Your task to perform on an android device: Go to ESPN.com Image 0: 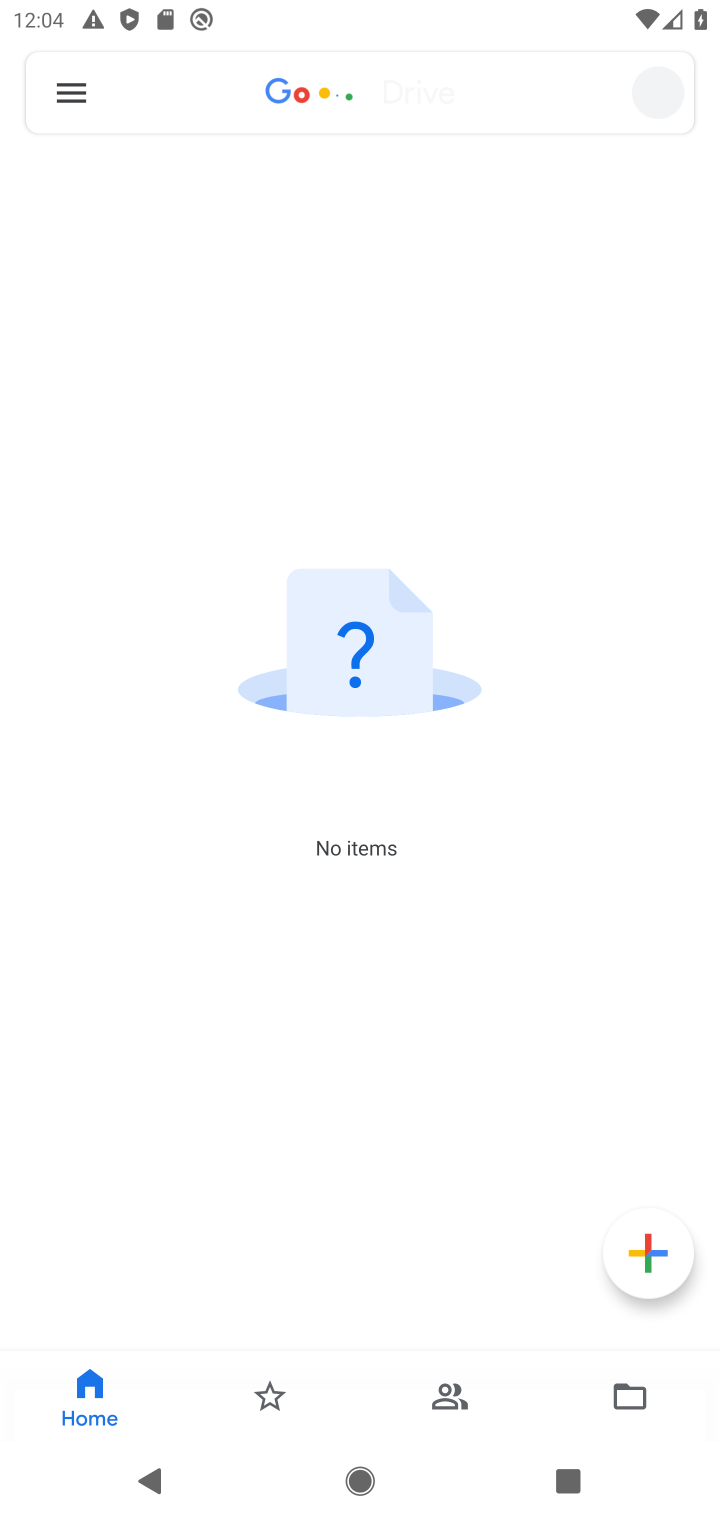
Step 0: press home button
Your task to perform on an android device: Go to ESPN.com Image 1: 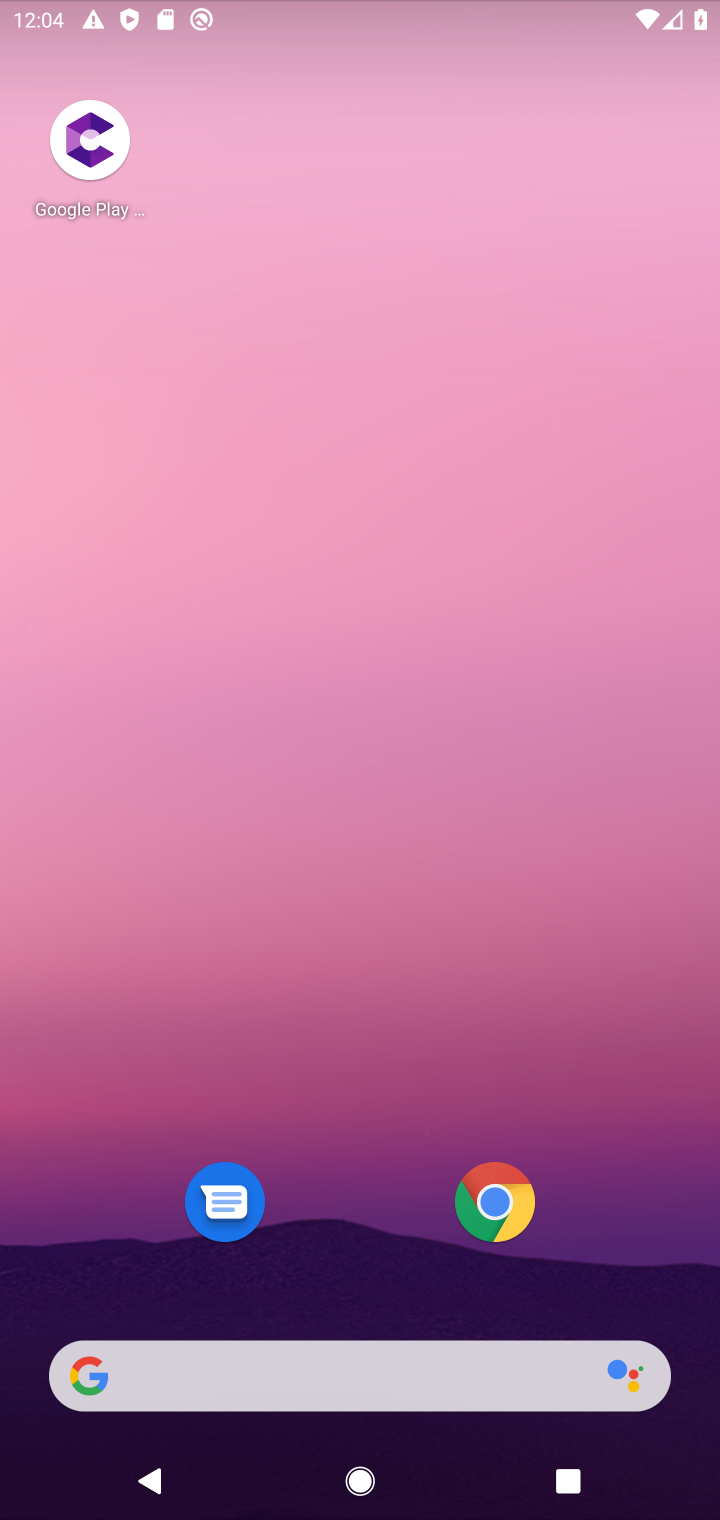
Step 1: press home button
Your task to perform on an android device: Go to ESPN.com Image 2: 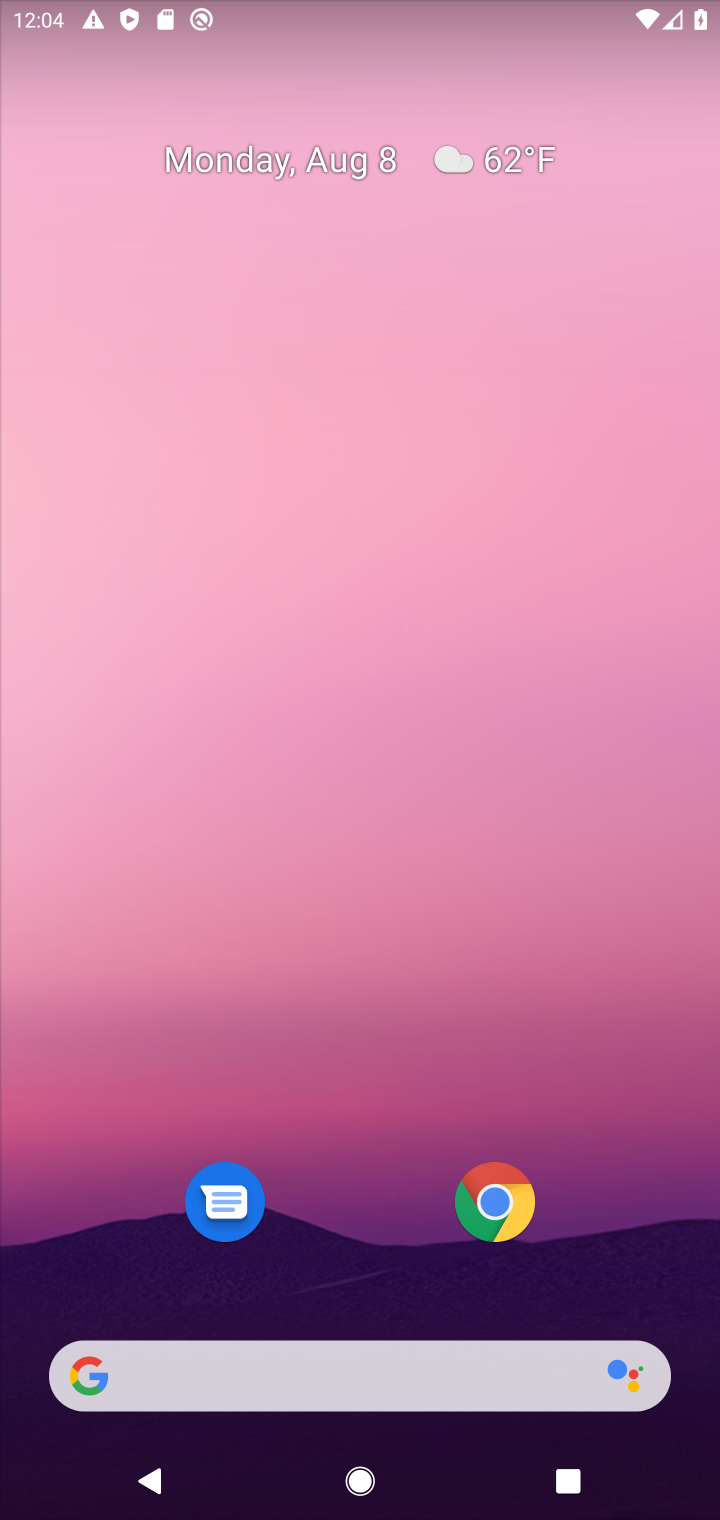
Step 2: click (487, 1203)
Your task to perform on an android device: Go to ESPN.com Image 3: 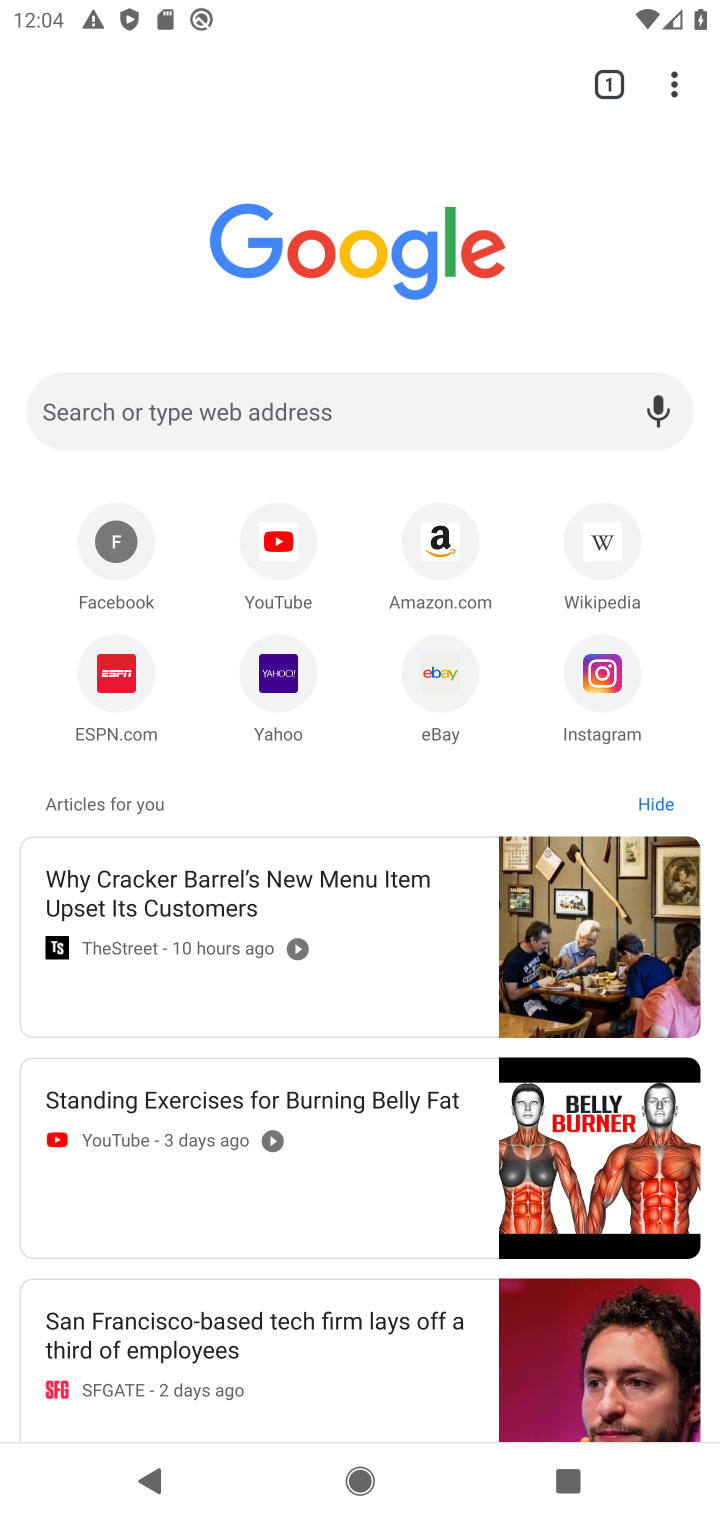
Step 3: click (98, 679)
Your task to perform on an android device: Go to ESPN.com Image 4: 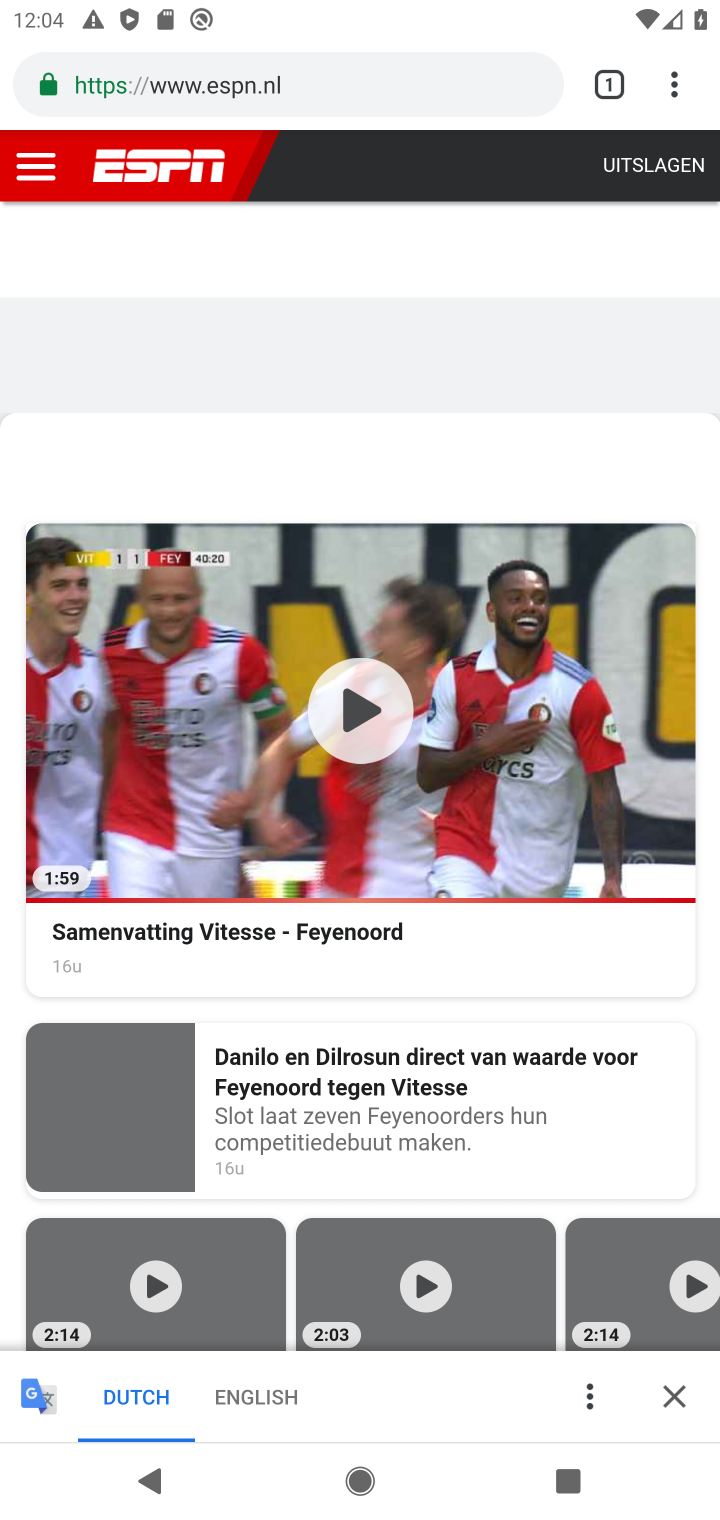
Step 4: task complete